Your task to perform on an android device: check data usage Image 0: 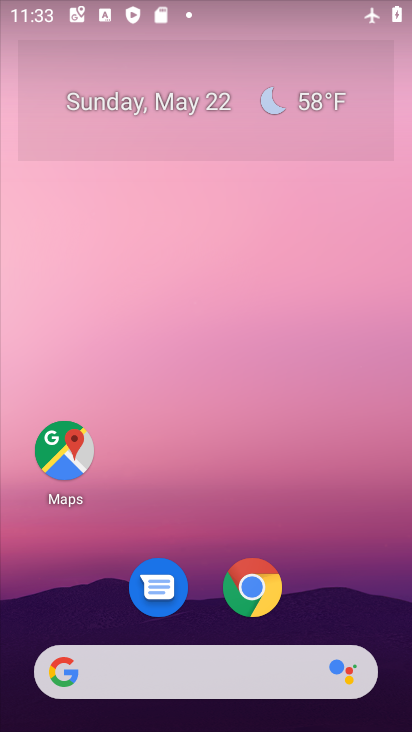
Step 0: drag from (303, 510) to (324, 23)
Your task to perform on an android device: check data usage Image 1: 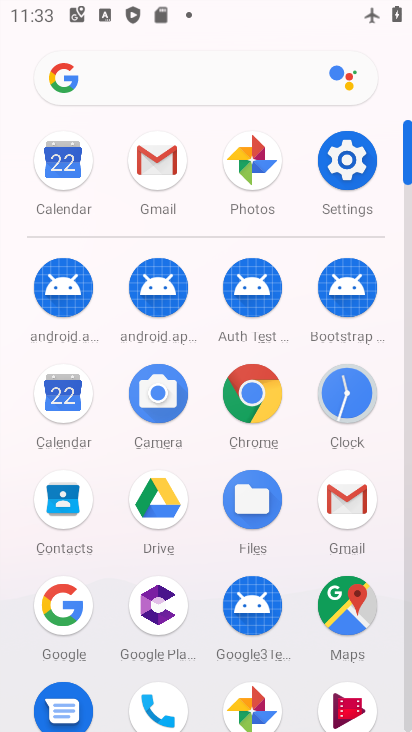
Step 1: click (344, 158)
Your task to perform on an android device: check data usage Image 2: 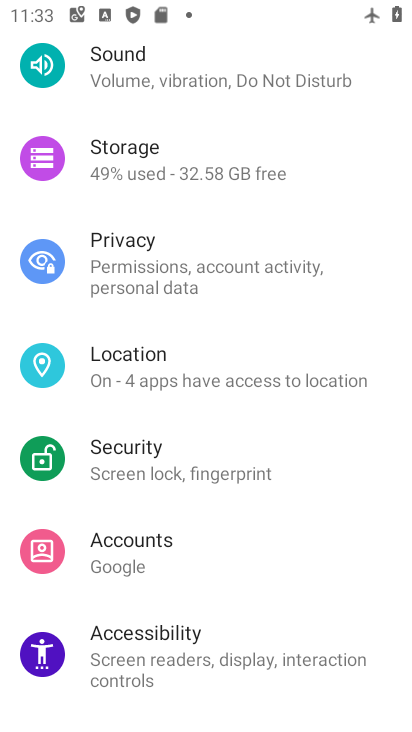
Step 2: drag from (288, 152) to (318, 599)
Your task to perform on an android device: check data usage Image 3: 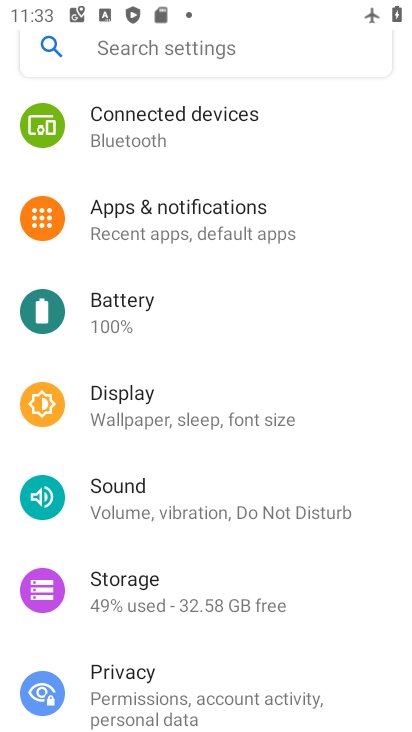
Step 3: drag from (207, 196) to (221, 626)
Your task to perform on an android device: check data usage Image 4: 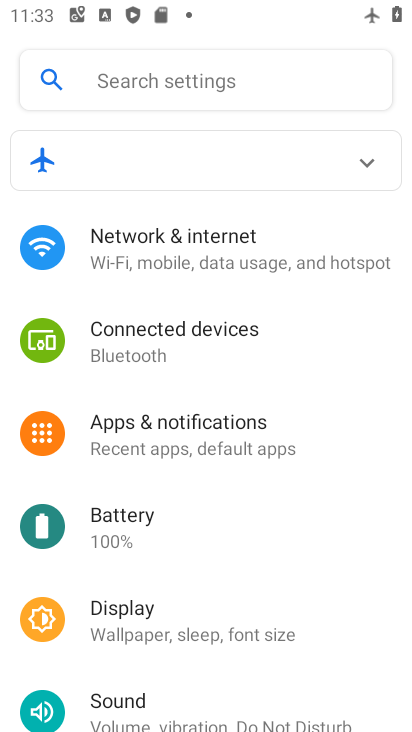
Step 4: click (248, 250)
Your task to perform on an android device: check data usage Image 5: 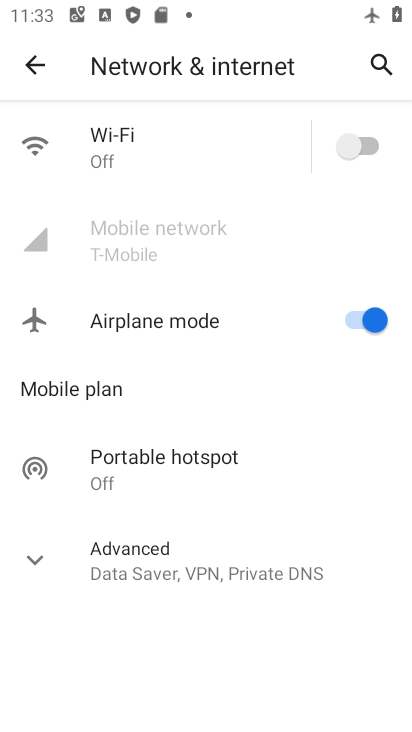
Step 5: click (359, 309)
Your task to perform on an android device: check data usage Image 6: 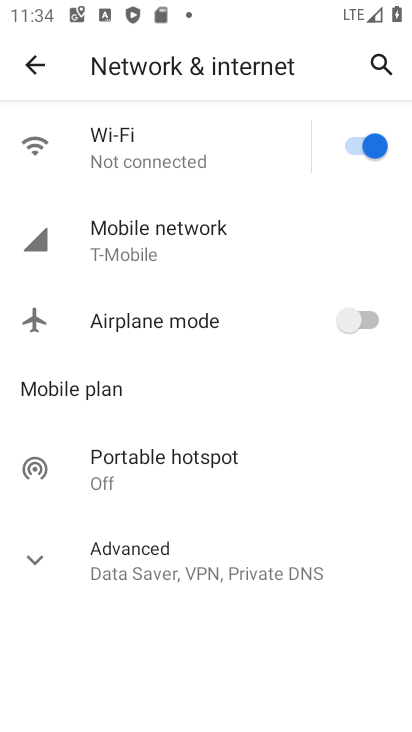
Step 6: click (293, 214)
Your task to perform on an android device: check data usage Image 7: 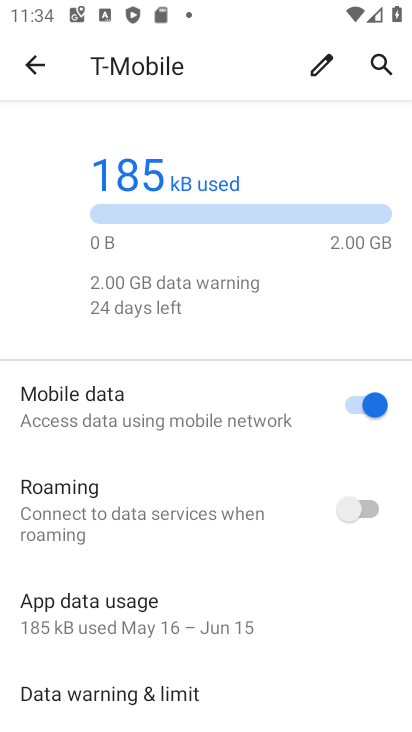
Step 7: task complete